Your task to perform on an android device: Open Chrome and go to settings Image 0: 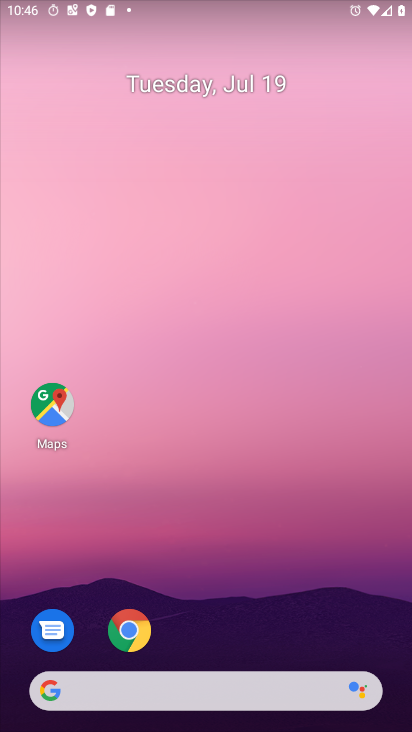
Step 0: press home button
Your task to perform on an android device: Open Chrome and go to settings Image 1: 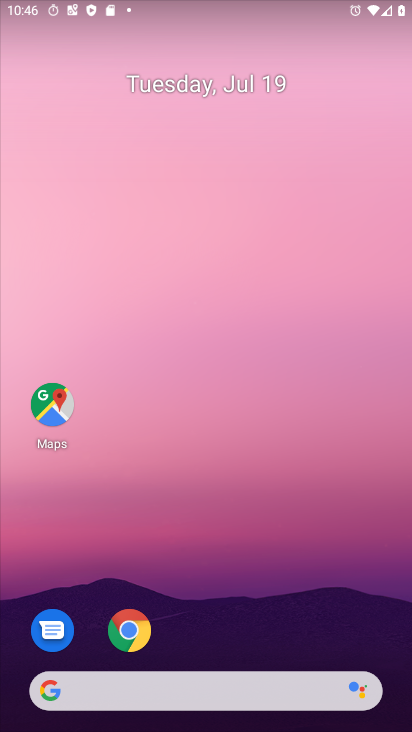
Step 1: click (117, 623)
Your task to perform on an android device: Open Chrome and go to settings Image 2: 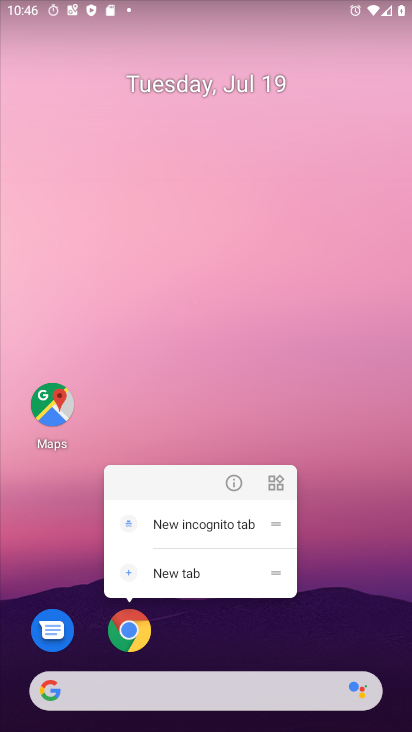
Step 2: click (117, 633)
Your task to perform on an android device: Open Chrome and go to settings Image 3: 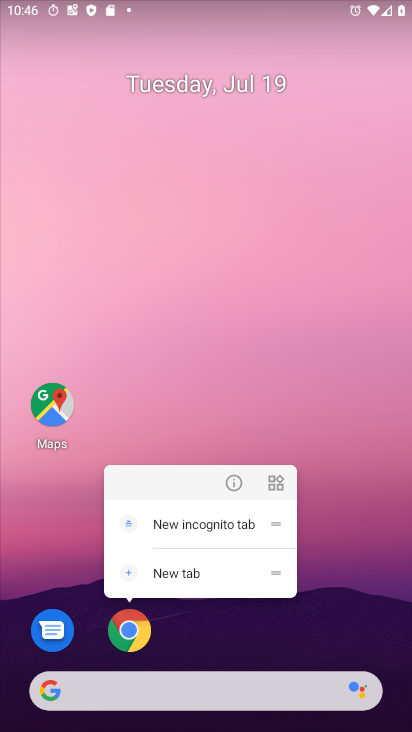
Step 3: click (129, 637)
Your task to perform on an android device: Open Chrome and go to settings Image 4: 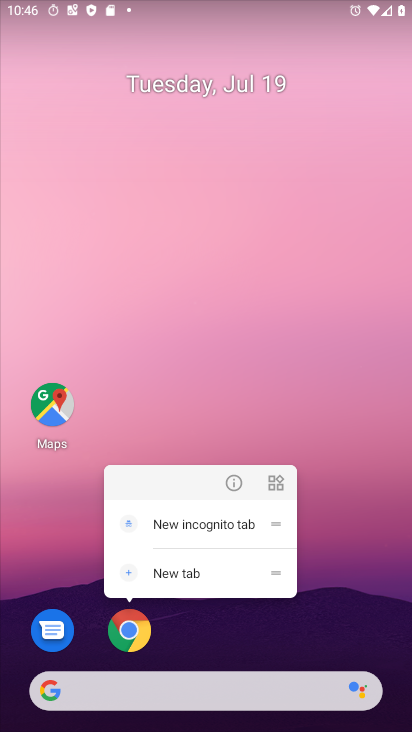
Step 4: click (134, 633)
Your task to perform on an android device: Open Chrome and go to settings Image 5: 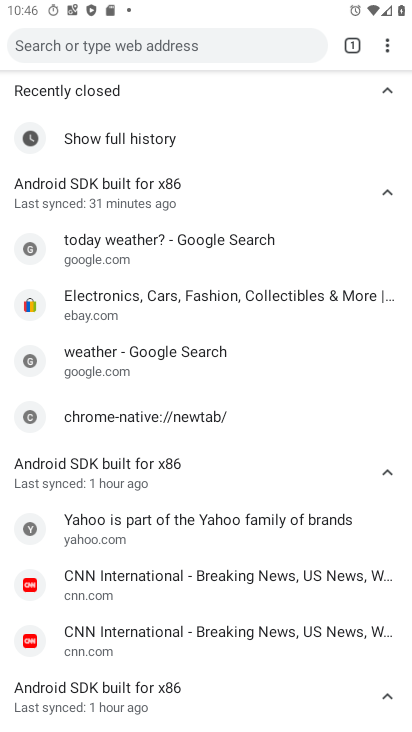
Step 5: task complete